Your task to perform on an android device: Go to wifi settings Image 0: 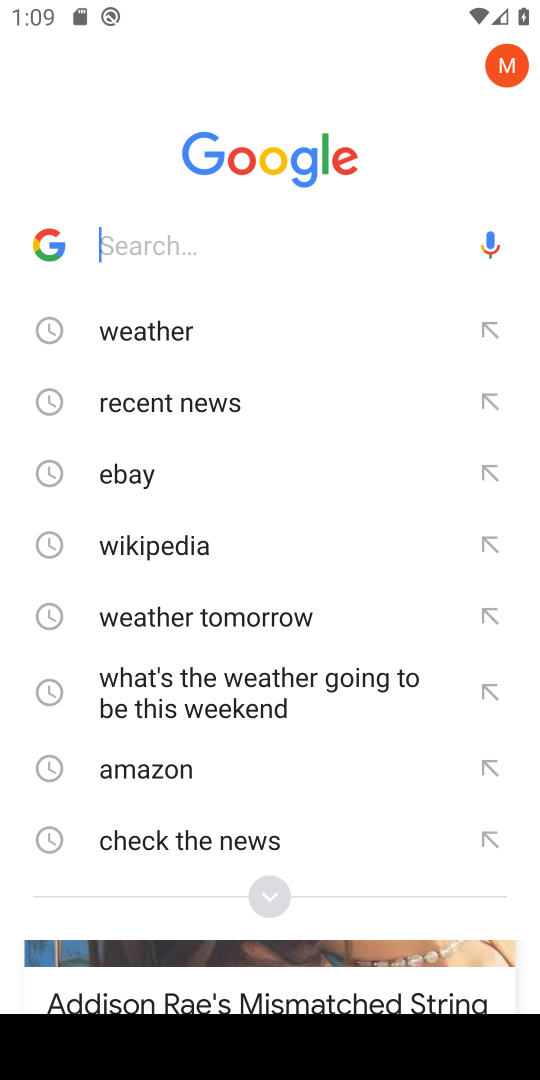
Step 0: press home button
Your task to perform on an android device: Go to wifi settings Image 1: 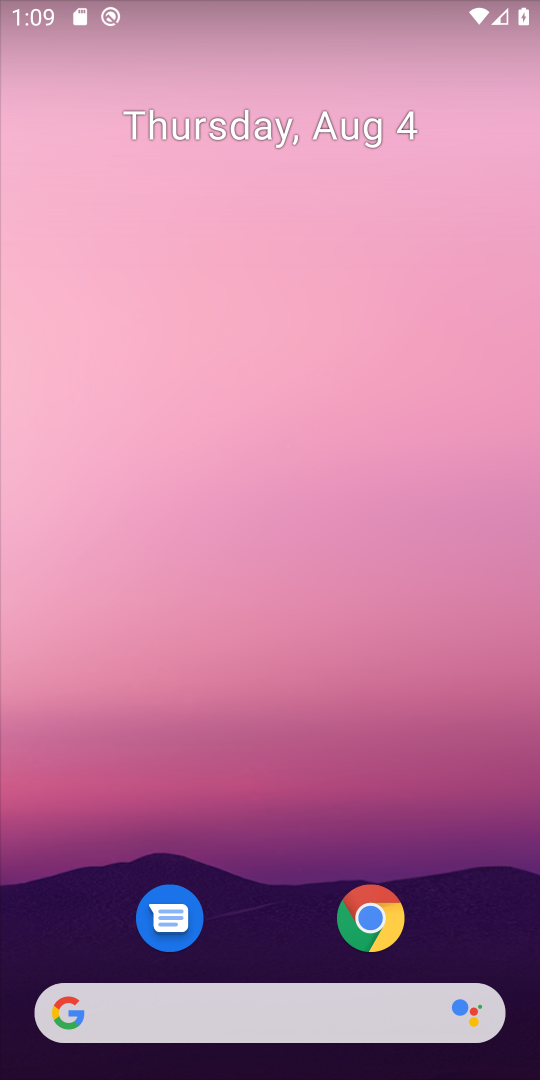
Step 1: drag from (260, 793) to (263, 261)
Your task to perform on an android device: Go to wifi settings Image 2: 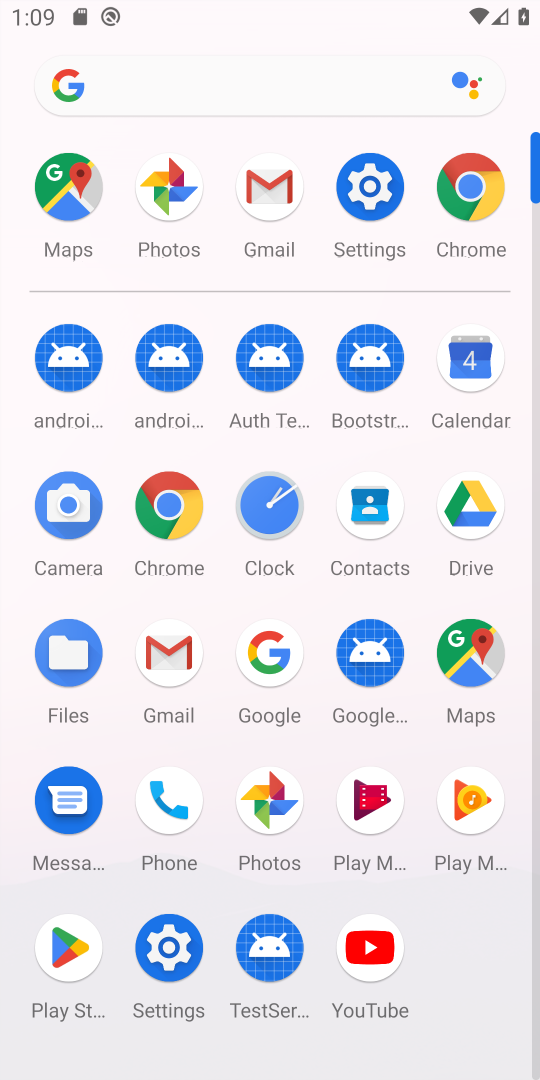
Step 2: click (396, 169)
Your task to perform on an android device: Go to wifi settings Image 3: 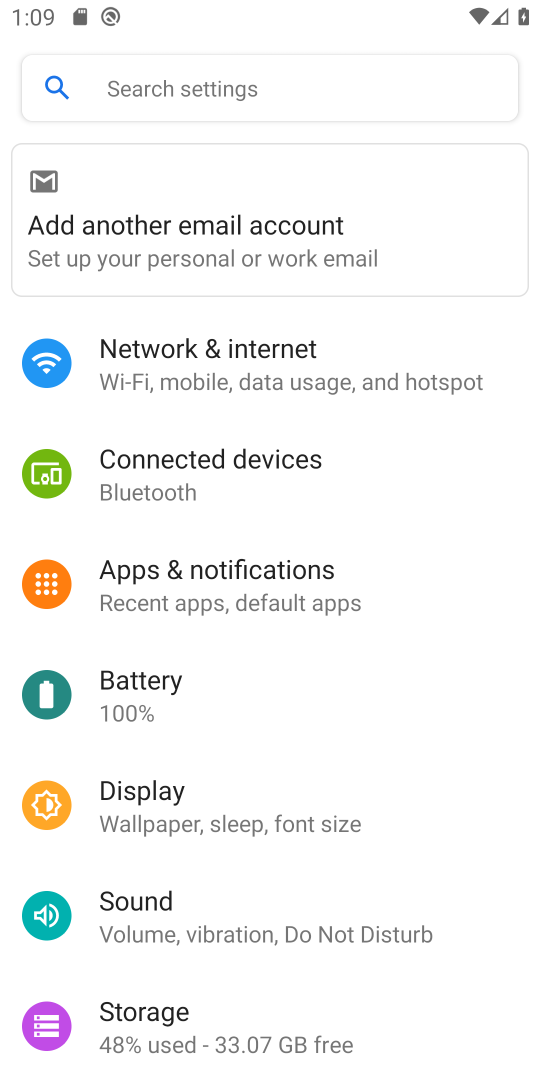
Step 3: click (212, 335)
Your task to perform on an android device: Go to wifi settings Image 4: 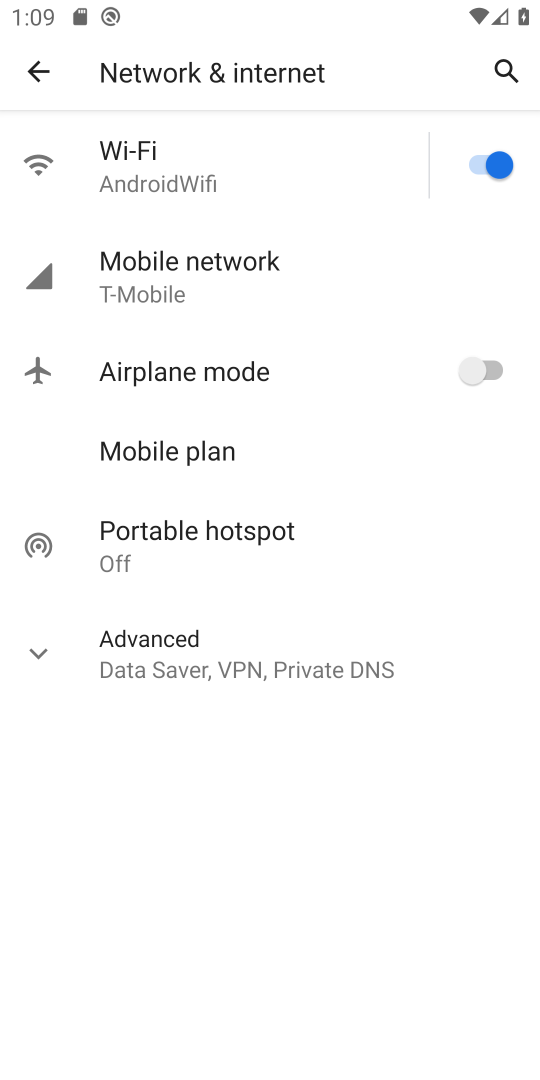
Step 4: click (173, 163)
Your task to perform on an android device: Go to wifi settings Image 5: 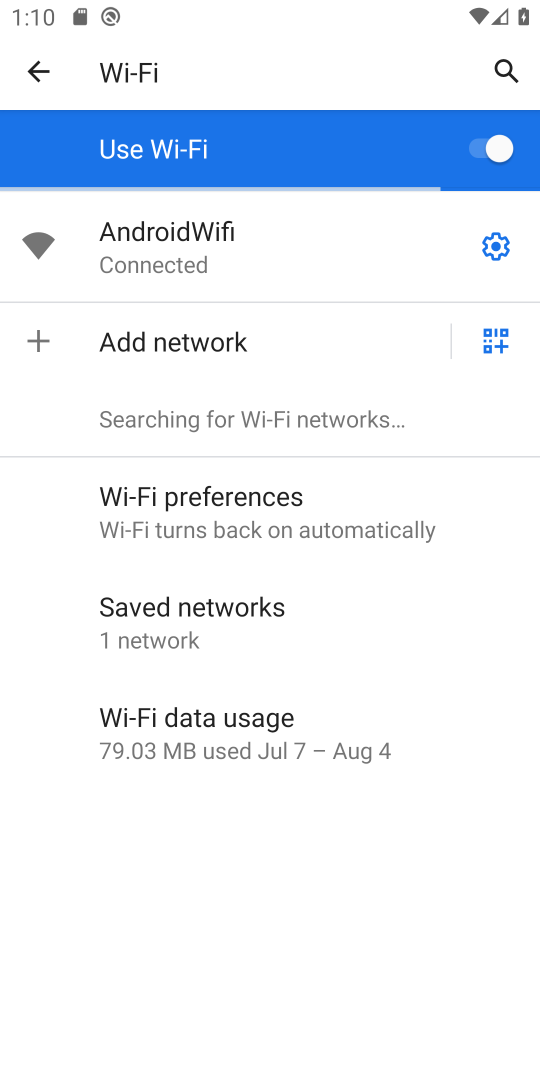
Step 5: task complete